Your task to perform on an android device: Open calendar and show me the first week of next month Image 0: 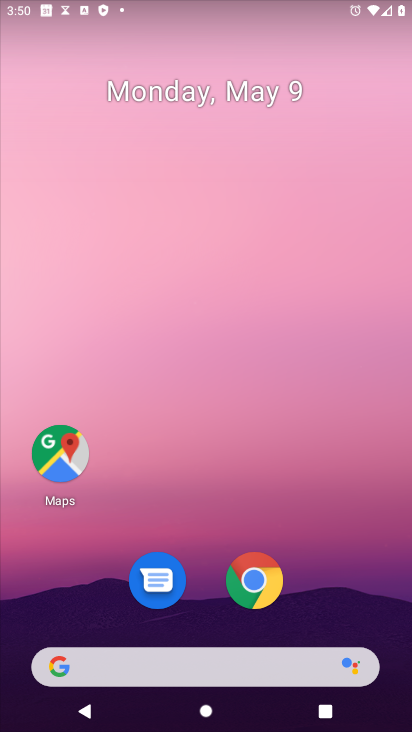
Step 0: drag from (337, 470) to (206, 23)
Your task to perform on an android device: Open calendar and show me the first week of next month Image 1: 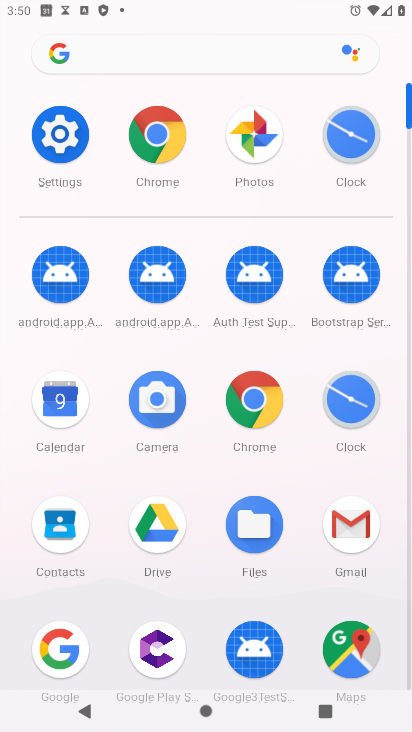
Step 1: click (63, 406)
Your task to perform on an android device: Open calendar and show me the first week of next month Image 2: 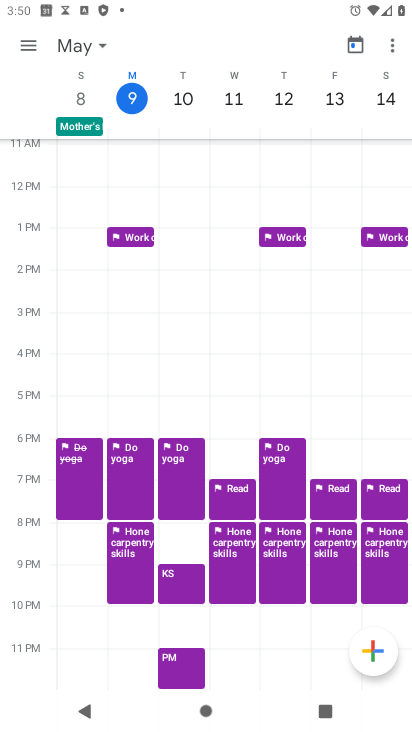
Step 2: click (92, 40)
Your task to perform on an android device: Open calendar and show me the first week of next month Image 3: 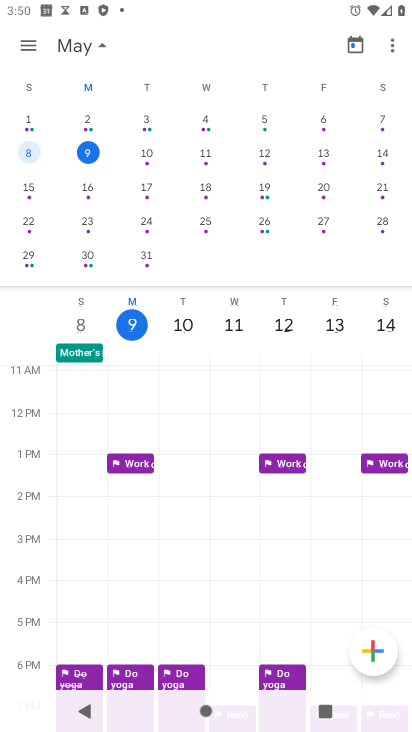
Step 3: drag from (363, 208) to (0, 282)
Your task to perform on an android device: Open calendar and show me the first week of next month Image 4: 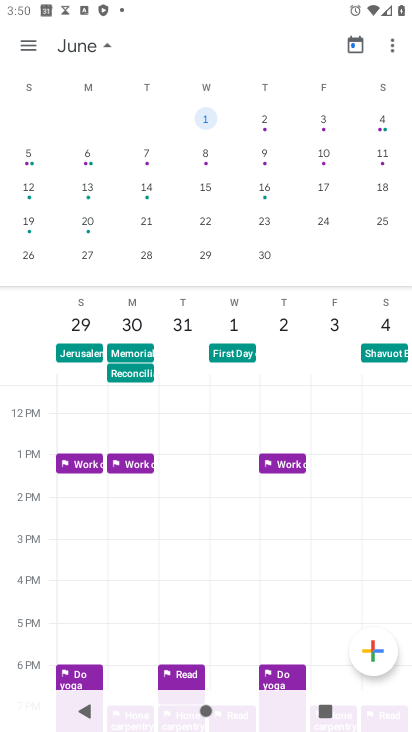
Step 4: click (210, 126)
Your task to perform on an android device: Open calendar and show me the first week of next month Image 5: 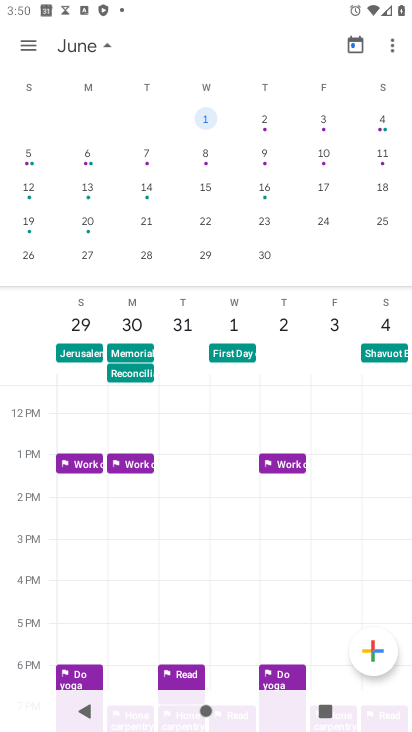
Step 5: task complete